Your task to perform on an android device: turn on bluetooth scan Image 0: 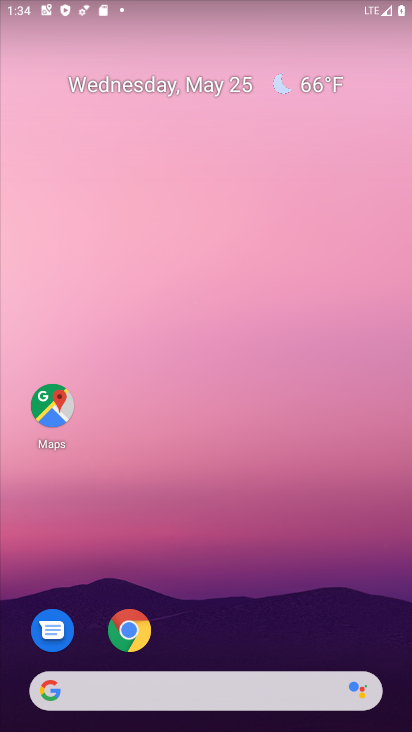
Step 0: press home button
Your task to perform on an android device: turn on bluetooth scan Image 1: 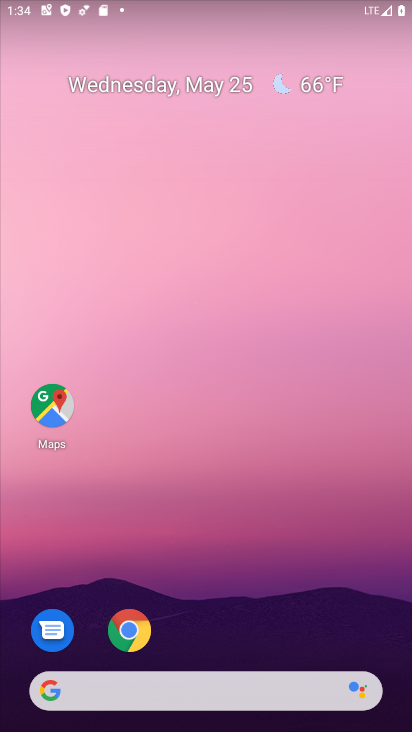
Step 1: drag from (214, 649) to (241, 100)
Your task to perform on an android device: turn on bluetooth scan Image 2: 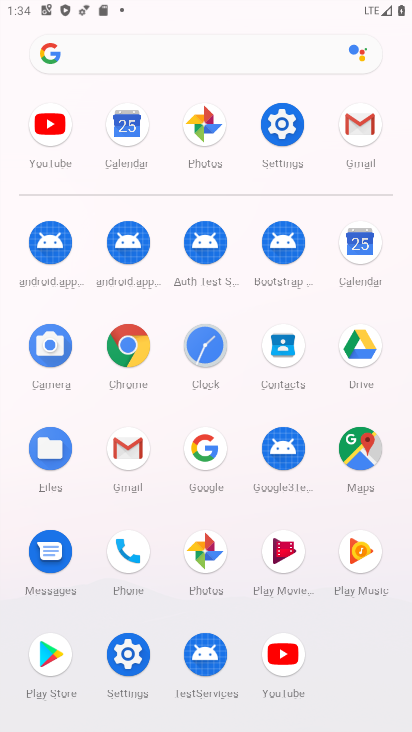
Step 2: click (127, 642)
Your task to perform on an android device: turn on bluetooth scan Image 3: 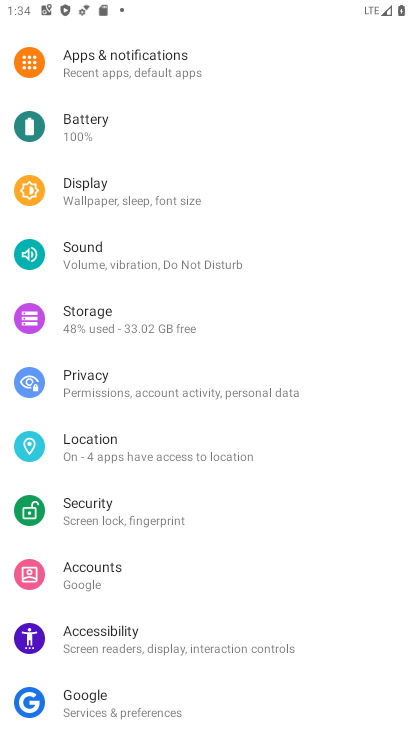
Step 3: click (123, 437)
Your task to perform on an android device: turn on bluetooth scan Image 4: 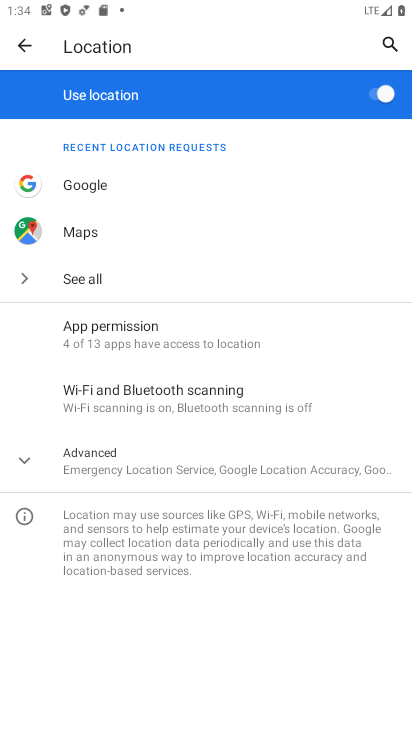
Step 4: click (173, 401)
Your task to perform on an android device: turn on bluetooth scan Image 5: 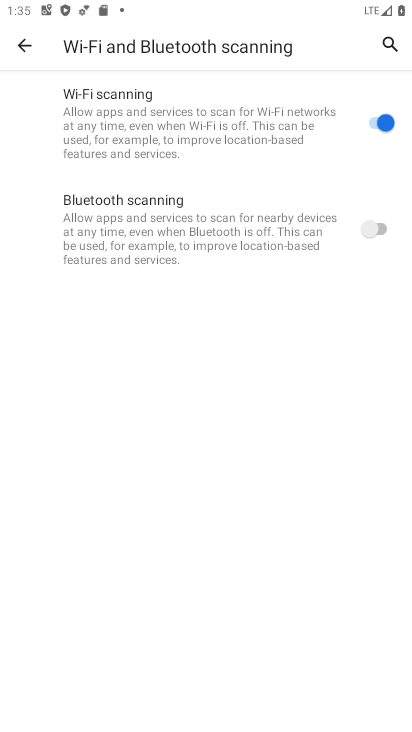
Step 5: click (371, 221)
Your task to perform on an android device: turn on bluetooth scan Image 6: 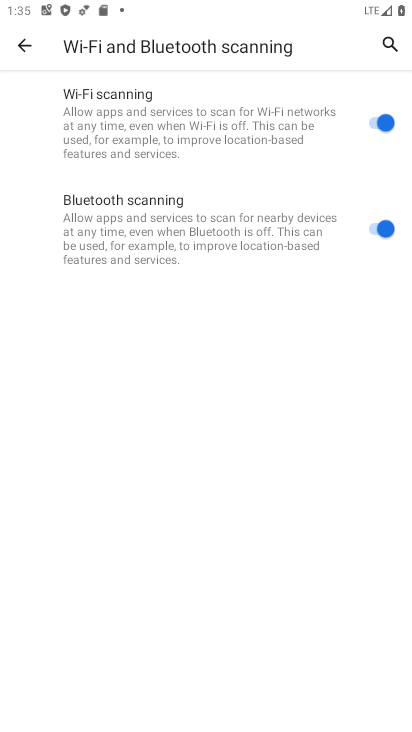
Step 6: task complete